Your task to perform on an android device: change notifications settings Image 0: 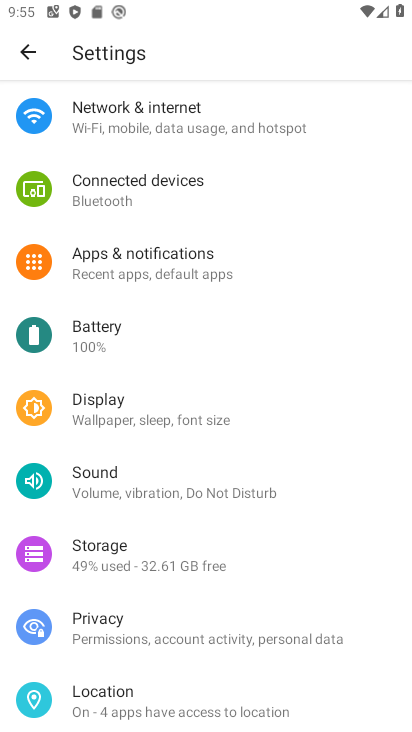
Step 0: click (164, 255)
Your task to perform on an android device: change notifications settings Image 1: 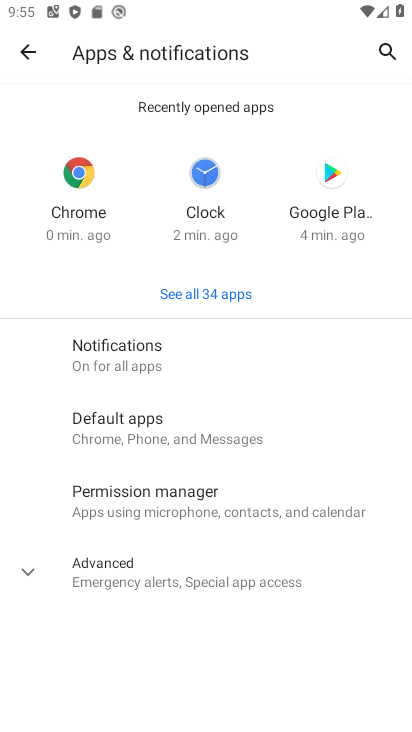
Step 1: task complete